Your task to perform on an android device: Add "razer blade" to the cart on bestbuy Image 0: 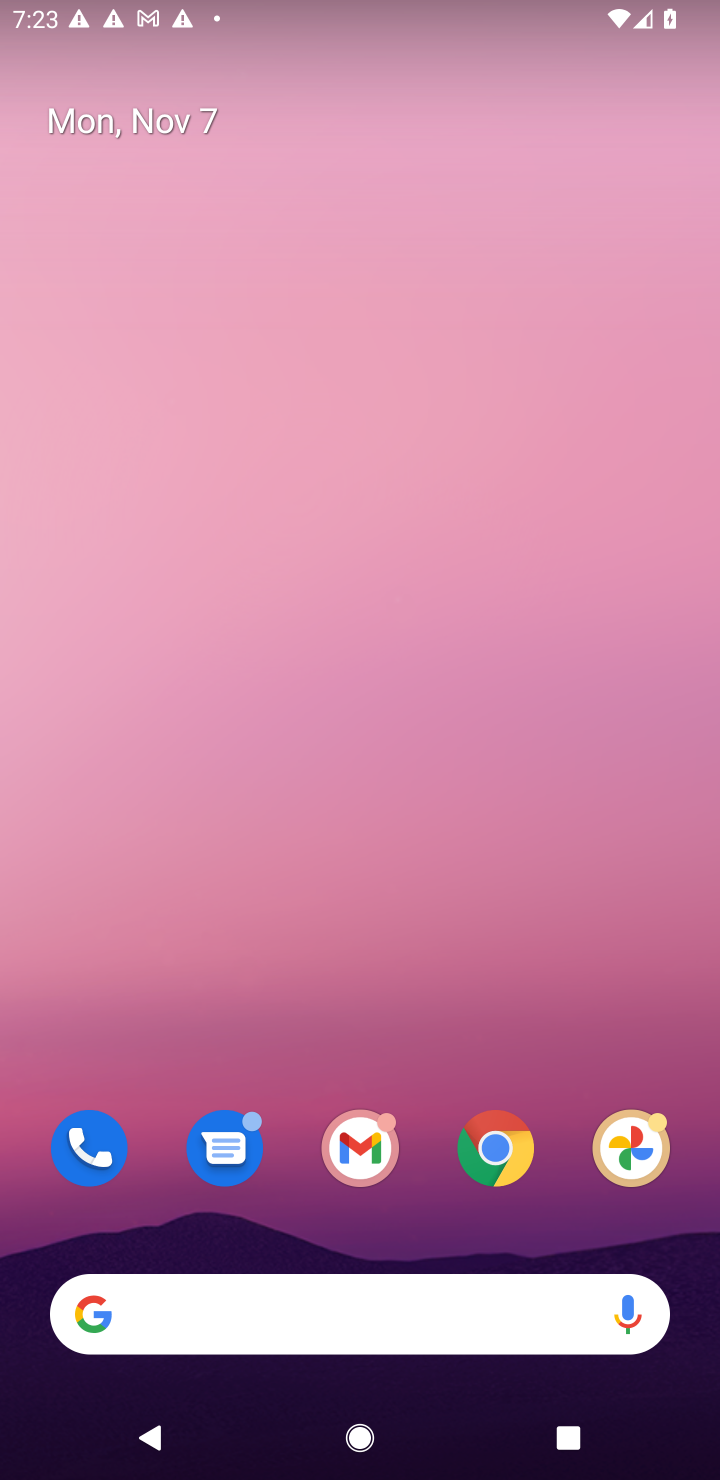
Step 0: click (487, 1167)
Your task to perform on an android device: Add "razer blade" to the cart on bestbuy Image 1: 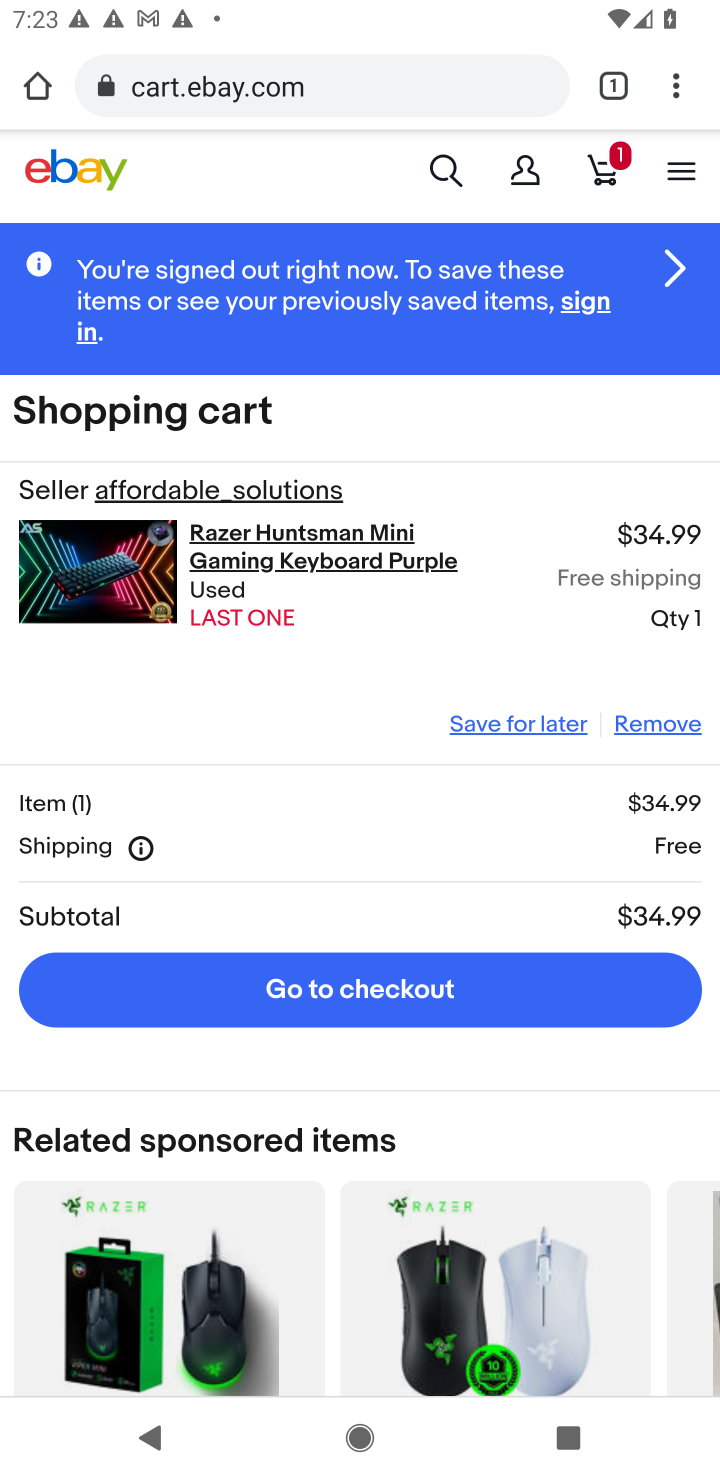
Step 1: click (32, 91)
Your task to perform on an android device: Add "razer blade" to the cart on bestbuy Image 2: 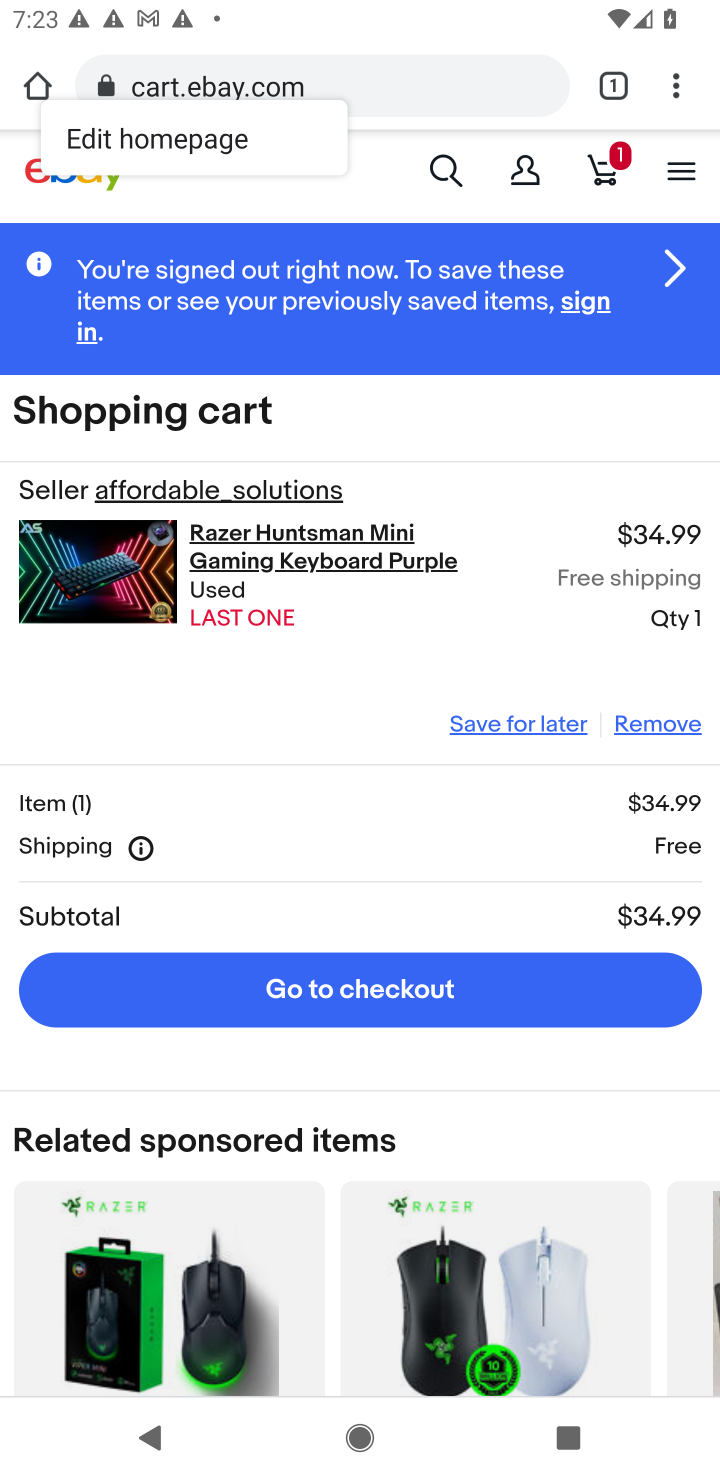
Step 2: click (38, 86)
Your task to perform on an android device: Add "razer blade" to the cart on bestbuy Image 3: 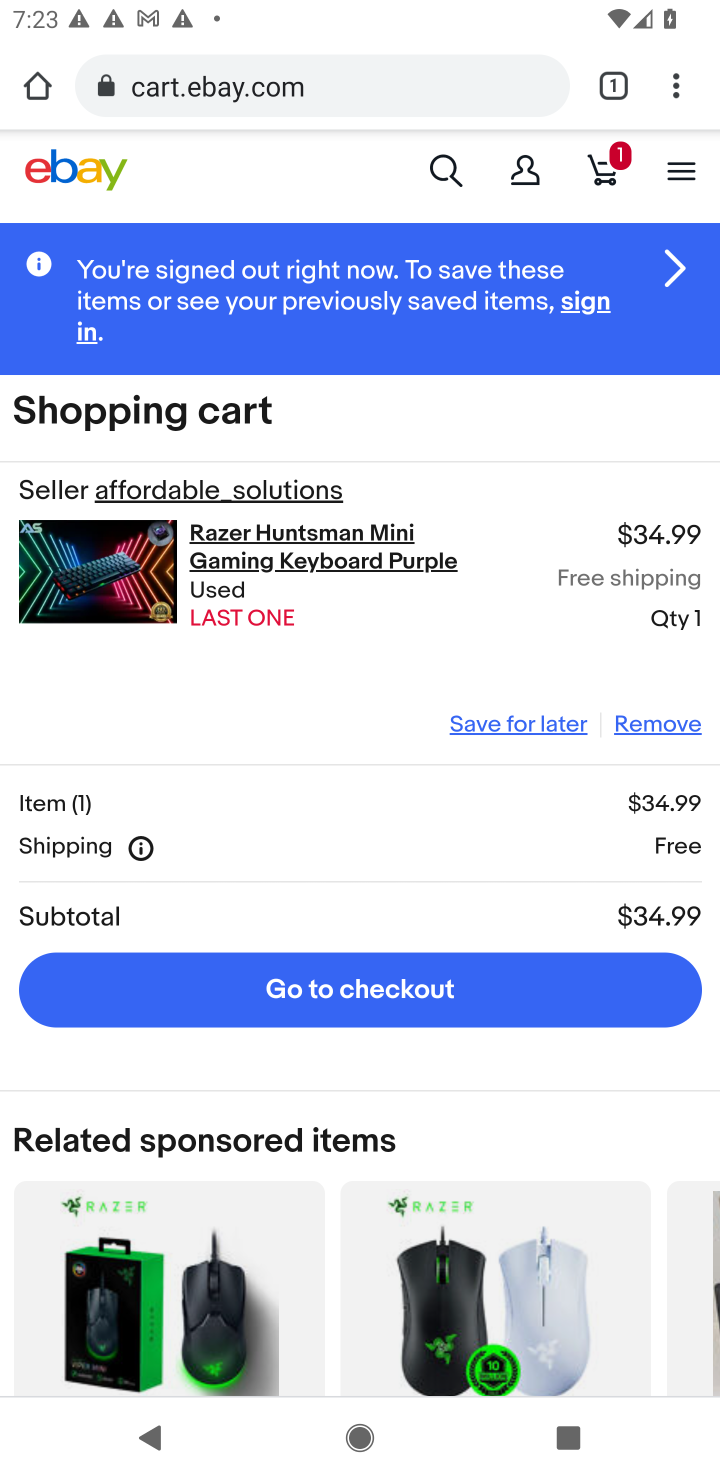
Step 3: click (459, 85)
Your task to perform on an android device: Add "razer blade" to the cart on bestbuy Image 4: 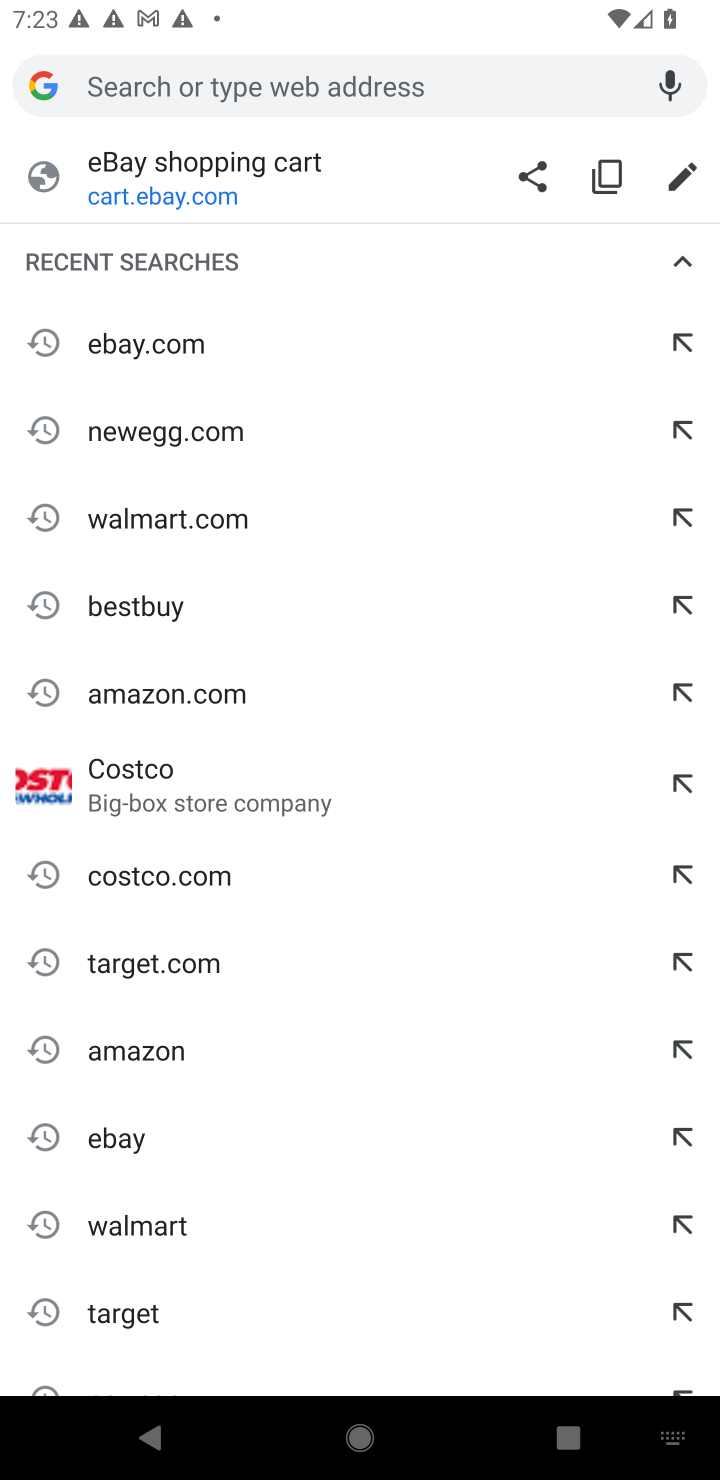
Step 4: click (158, 604)
Your task to perform on an android device: Add "razer blade" to the cart on bestbuy Image 5: 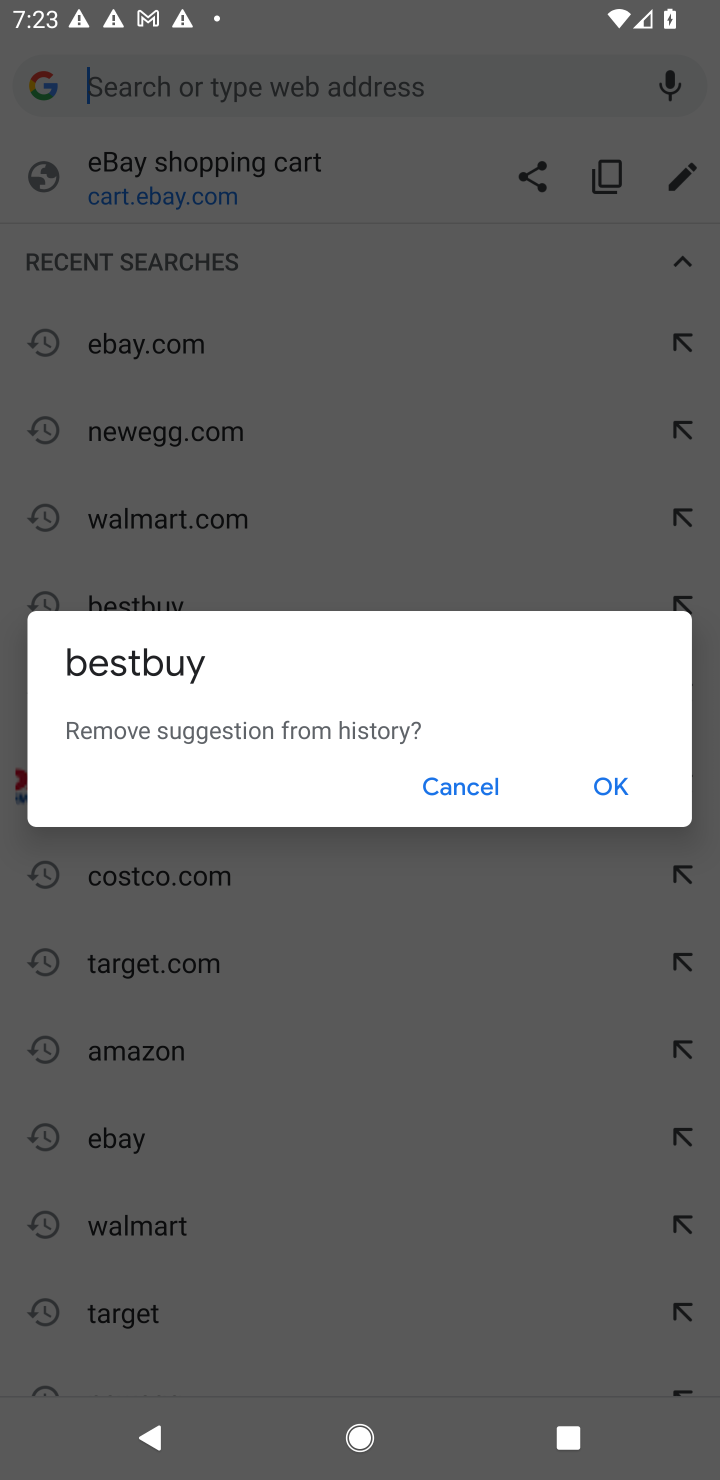
Step 5: click (448, 790)
Your task to perform on an android device: Add "razer blade" to the cart on bestbuy Image 6: 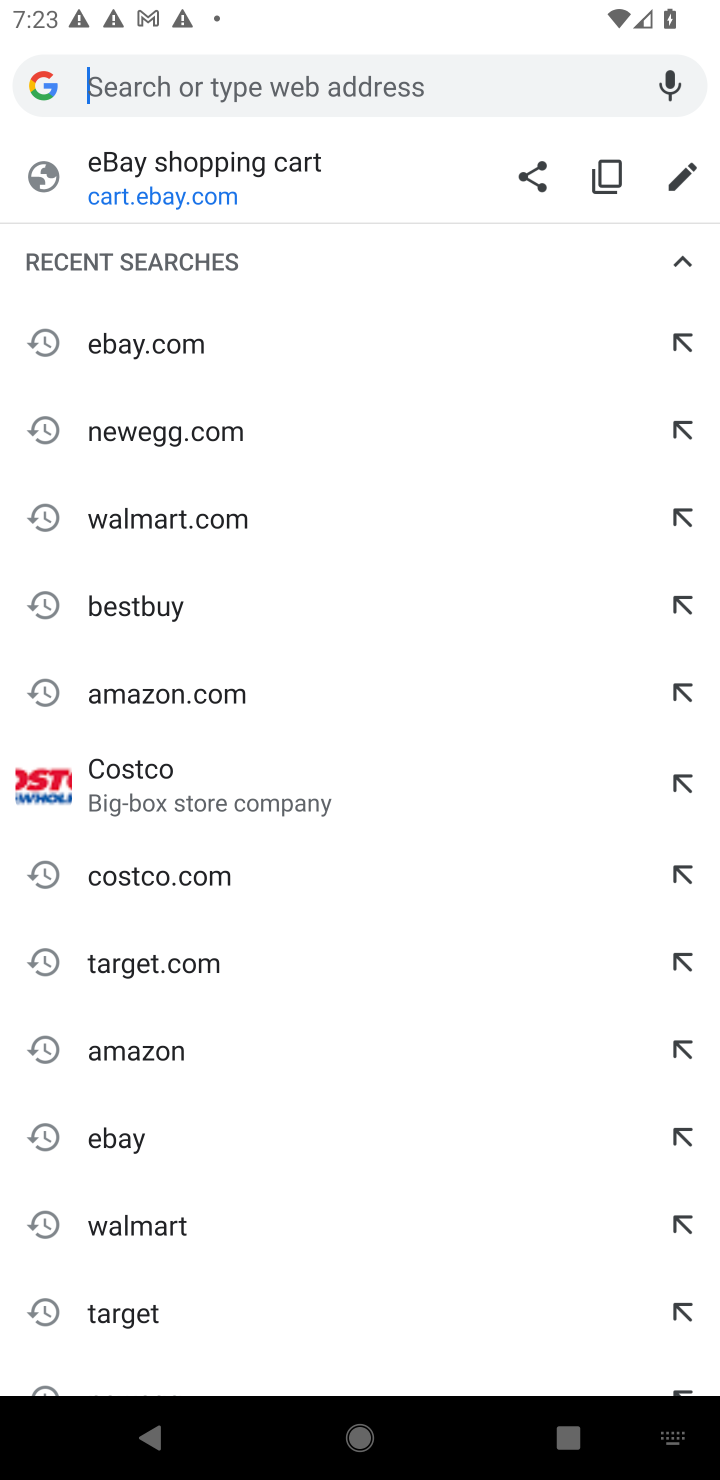
Step 6: click (155, 613)
Your task to perform on an android device: Add "razer blade" to the cart on bestbuy Image 7: 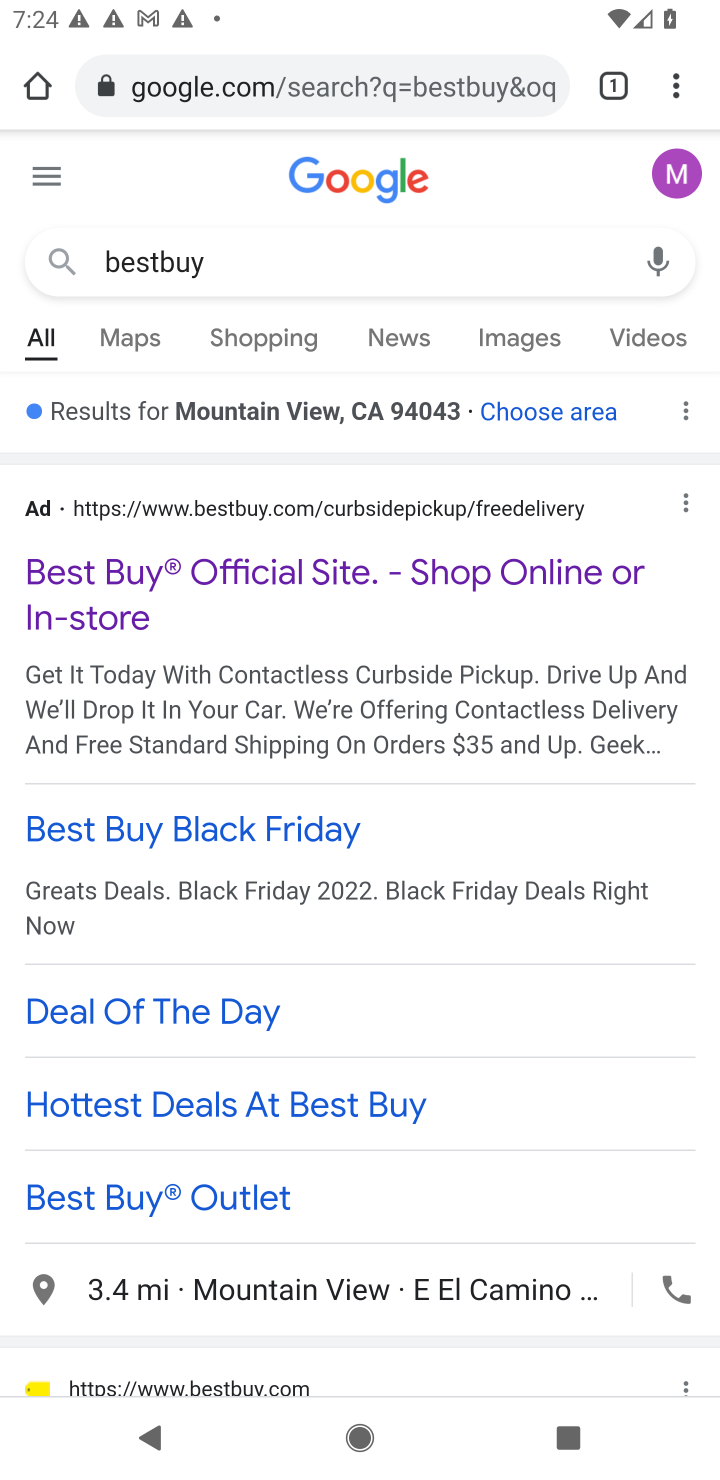
Step 7: drag from (299, 957) to (330, 373)
Your task to perform on an android device: Add "razer blade" to the cart on bestbuy Image 8: 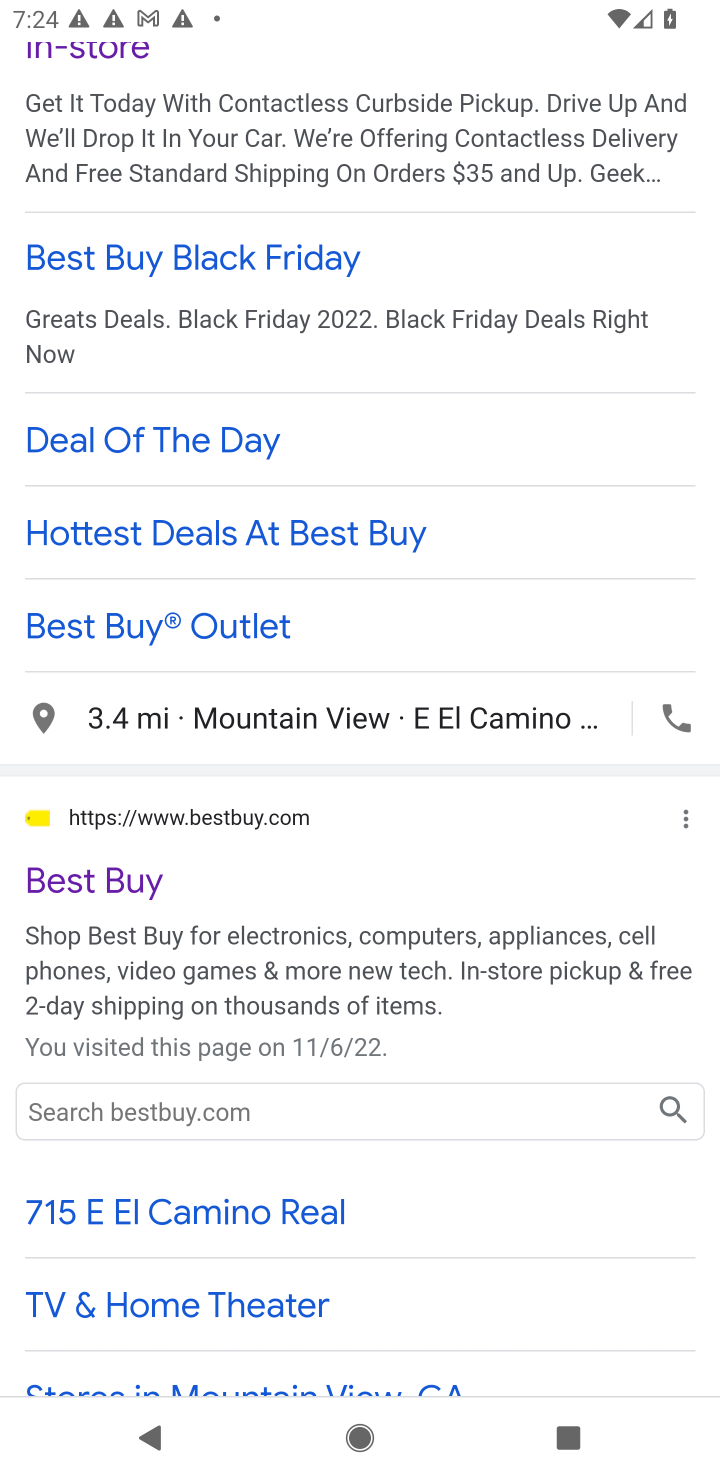
Step 8: click (181, 809)
Your task to perform on an android device: Add "razer blade" to the cart on bestbuy Image 9: 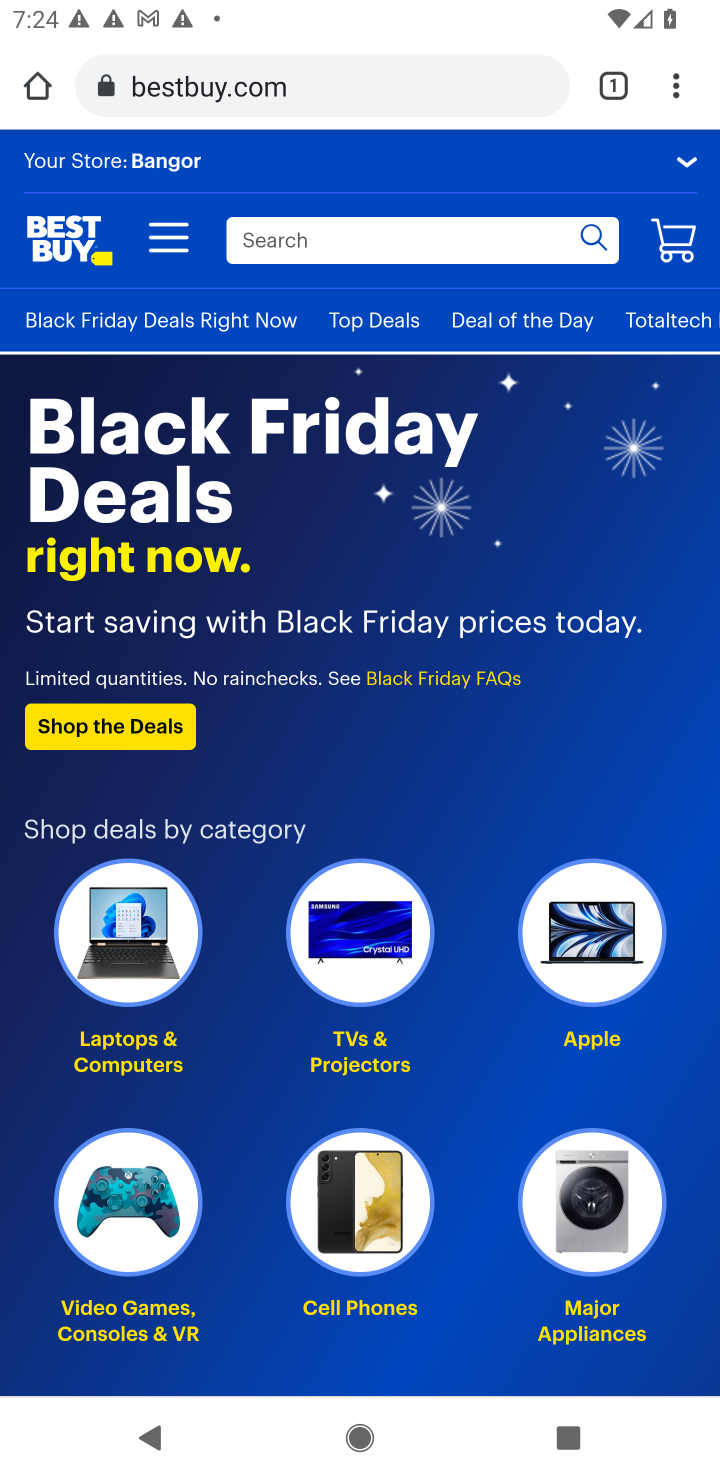
Step 9: click (414, 238)
Your task to perform on an android device: Add "razer blade" to the cart on bestbuy Image 10: 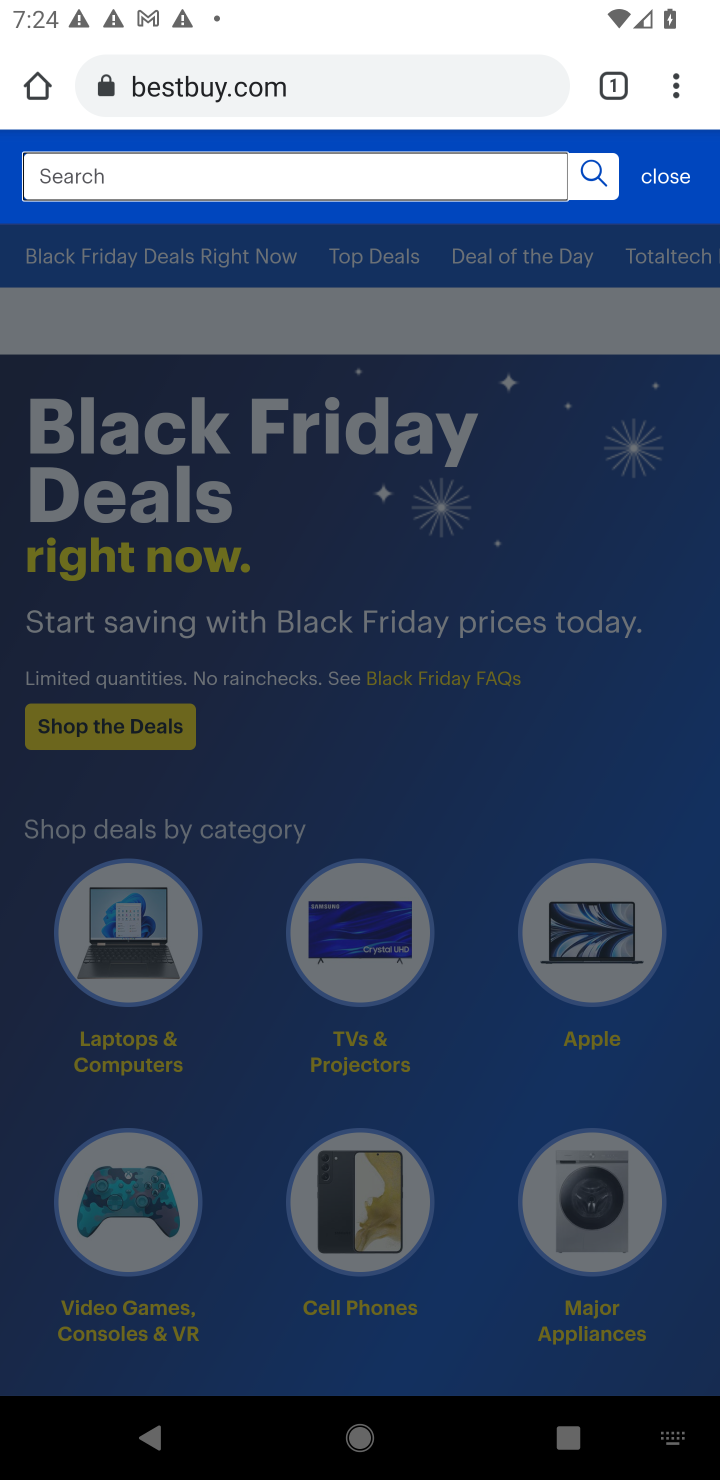
Step 10: type "razer blade"
Your task to perform on an android device: Add "razer blade" to the cart on bestbuy Image 11: 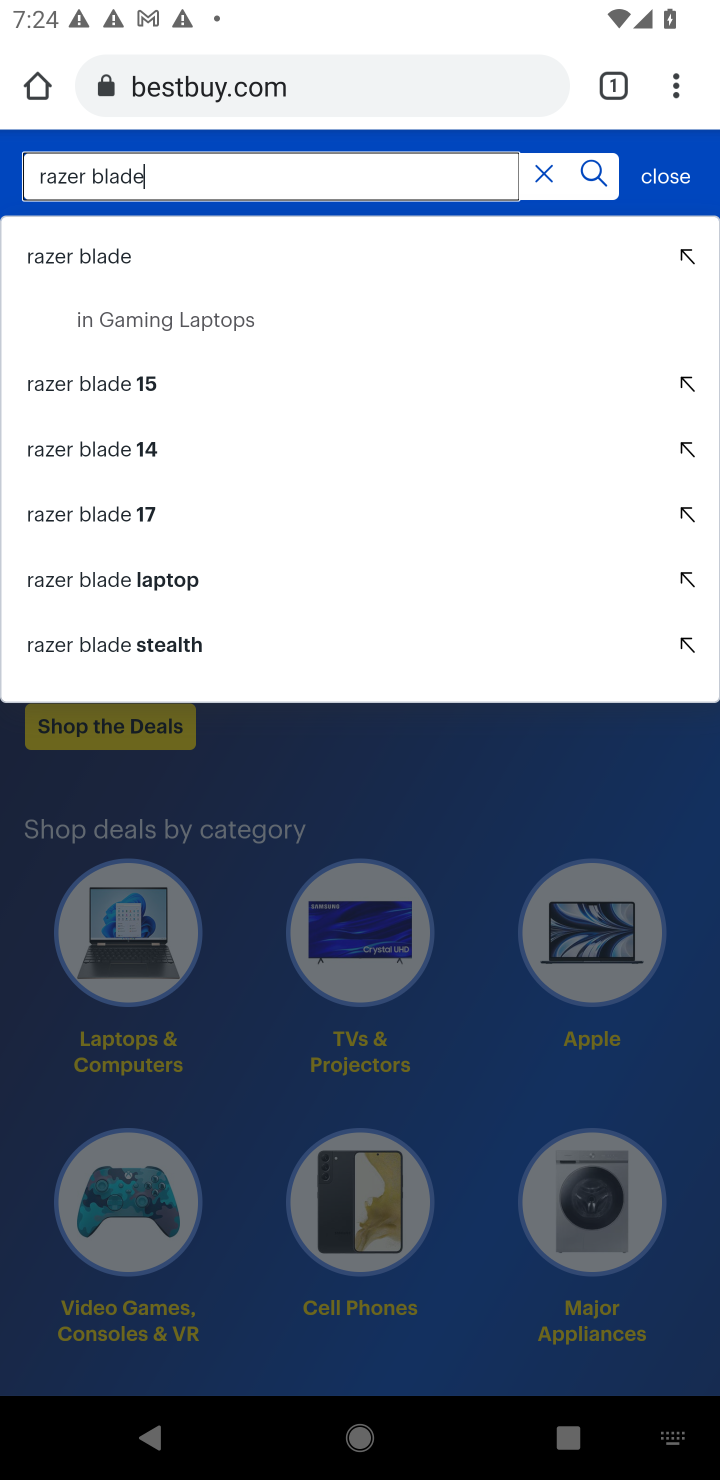
Step 11: click (53, 255)
Your task to perform on an android device: Add "razer blade" to the cart on bestbuy Image 12: 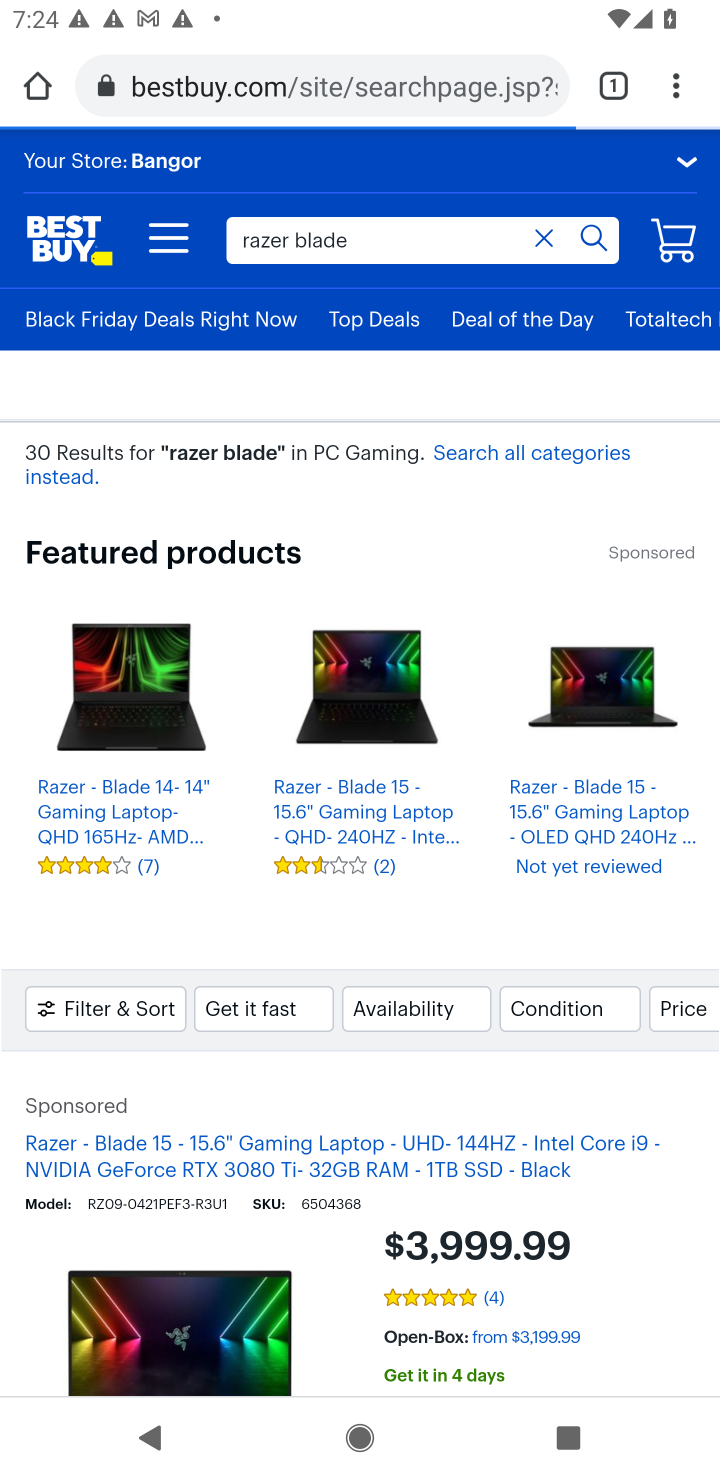
Step 12: drag from (448, 1097) to (502, 493)
Your task to perform on an android device: Add "razer blade" to the cart on bestbuy Image 13: 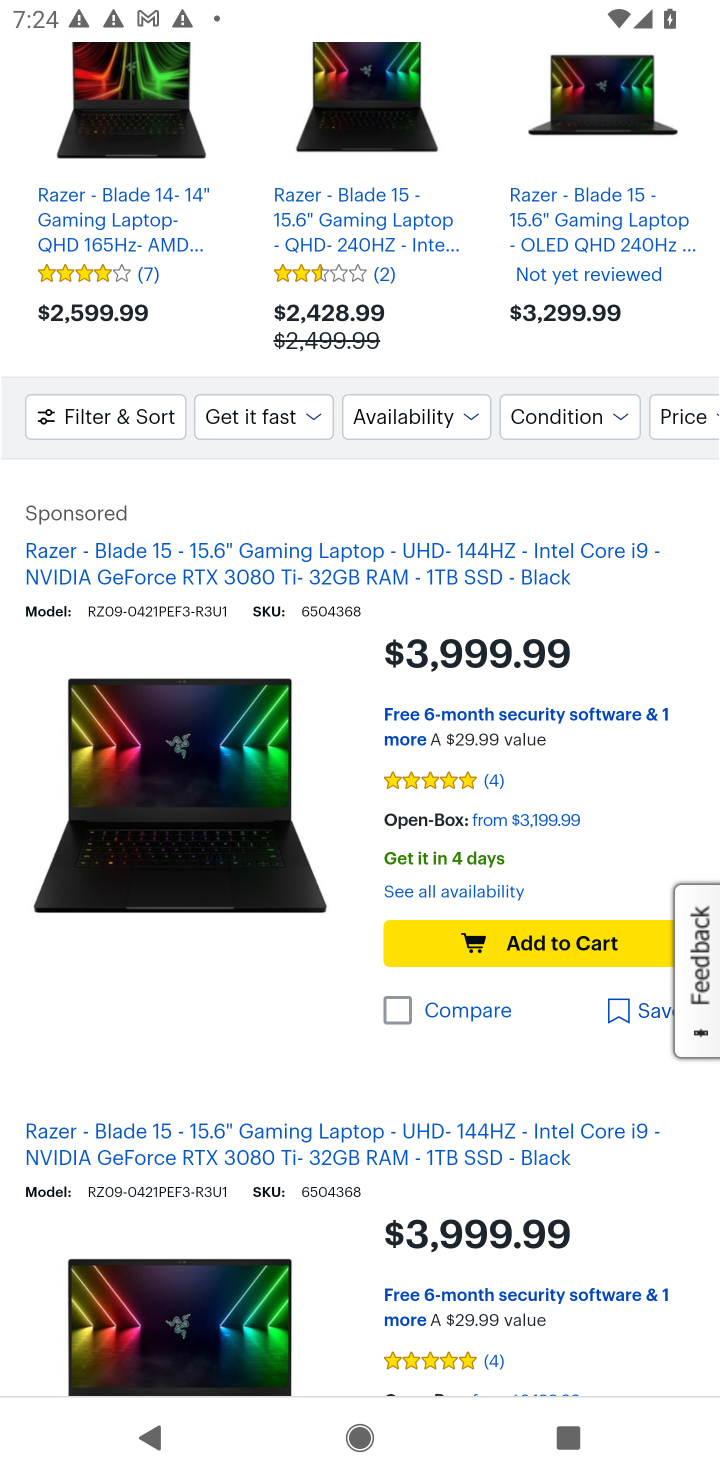
Step 13: drag from (254, 1006) to (239, 574)
Your task to perform on an android device: Add "razer blade" to the cart on bestbuy Image 14: 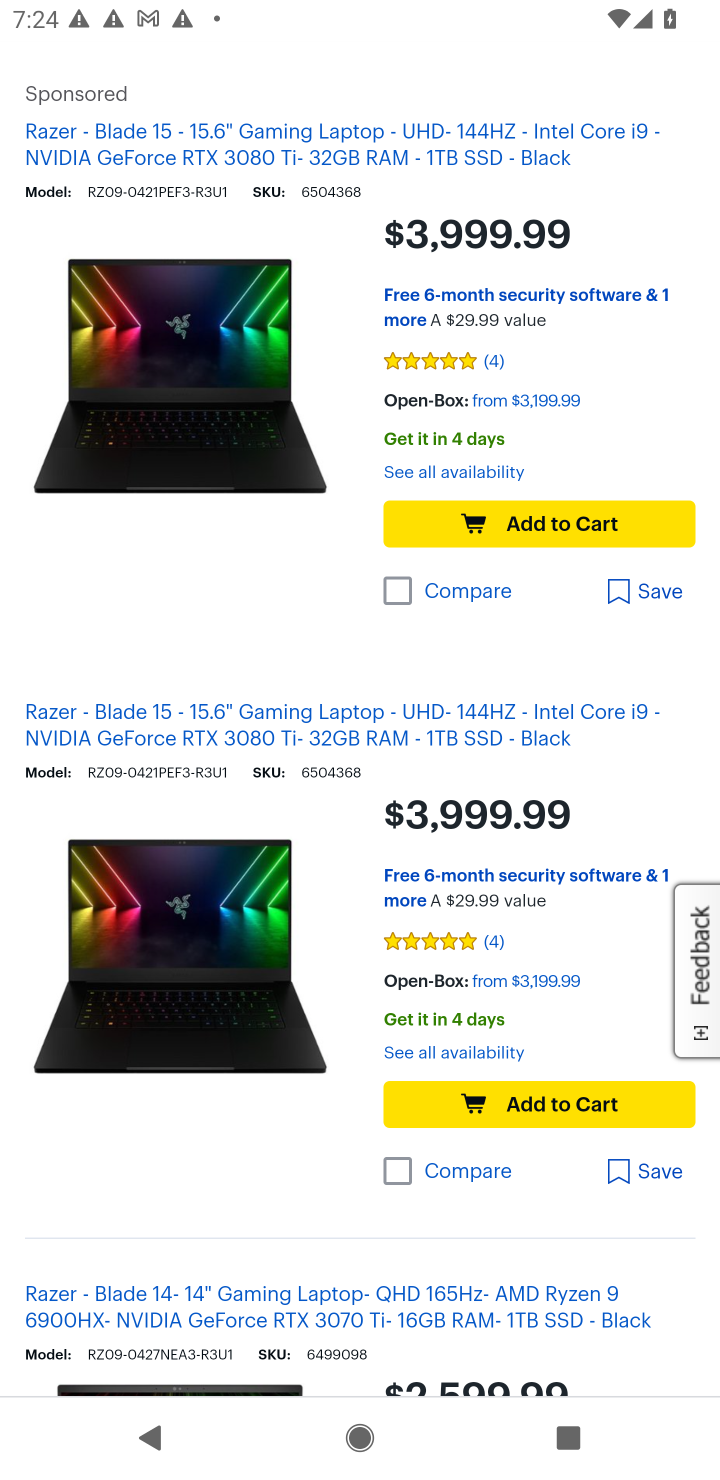
Step 14: drag from (261, 811) to (273, 921)
Your task to perform on an android device: Add "razer blade" to the cart on bestbuy Image 15: 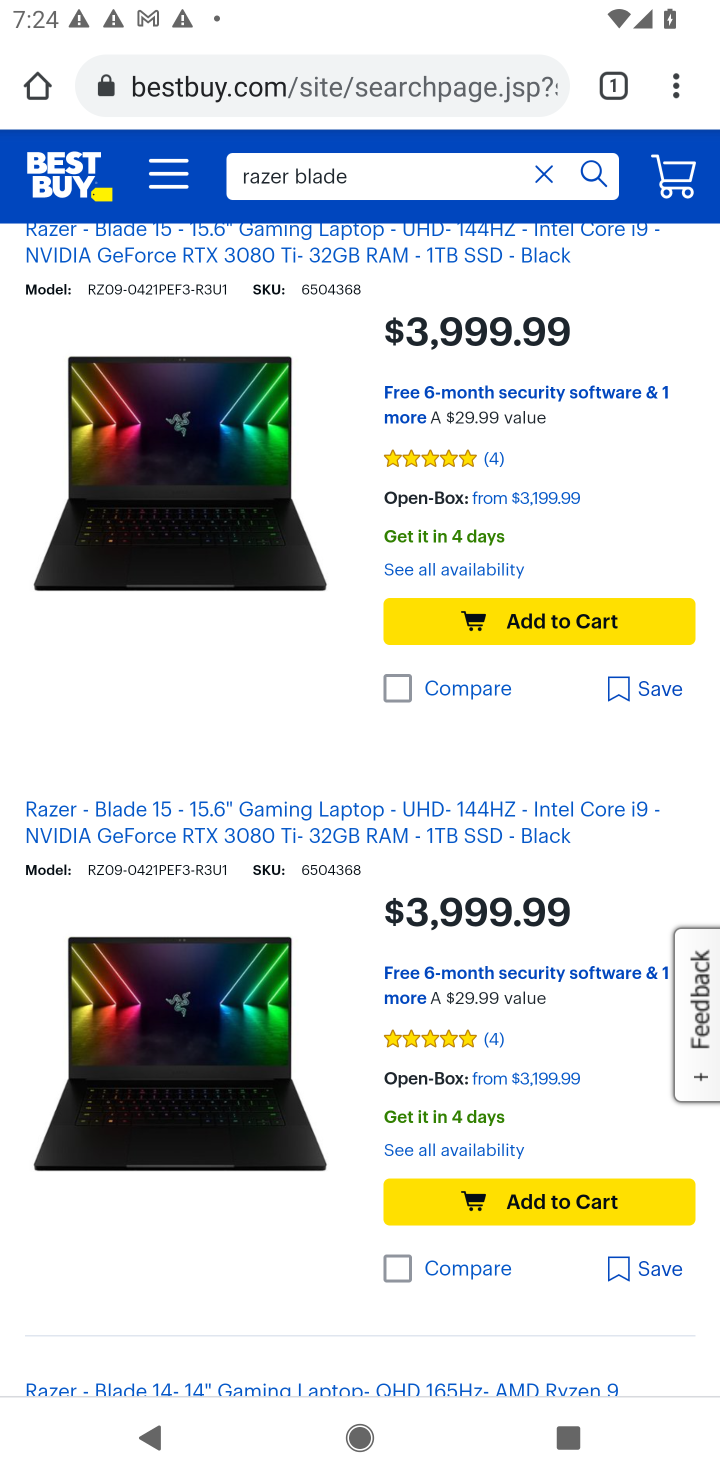
Step 15: drag from (256, 584) to (328, 1282)
Your task to perform on an android device: Add "razer blade" to the cart on bestbuy Image 16: 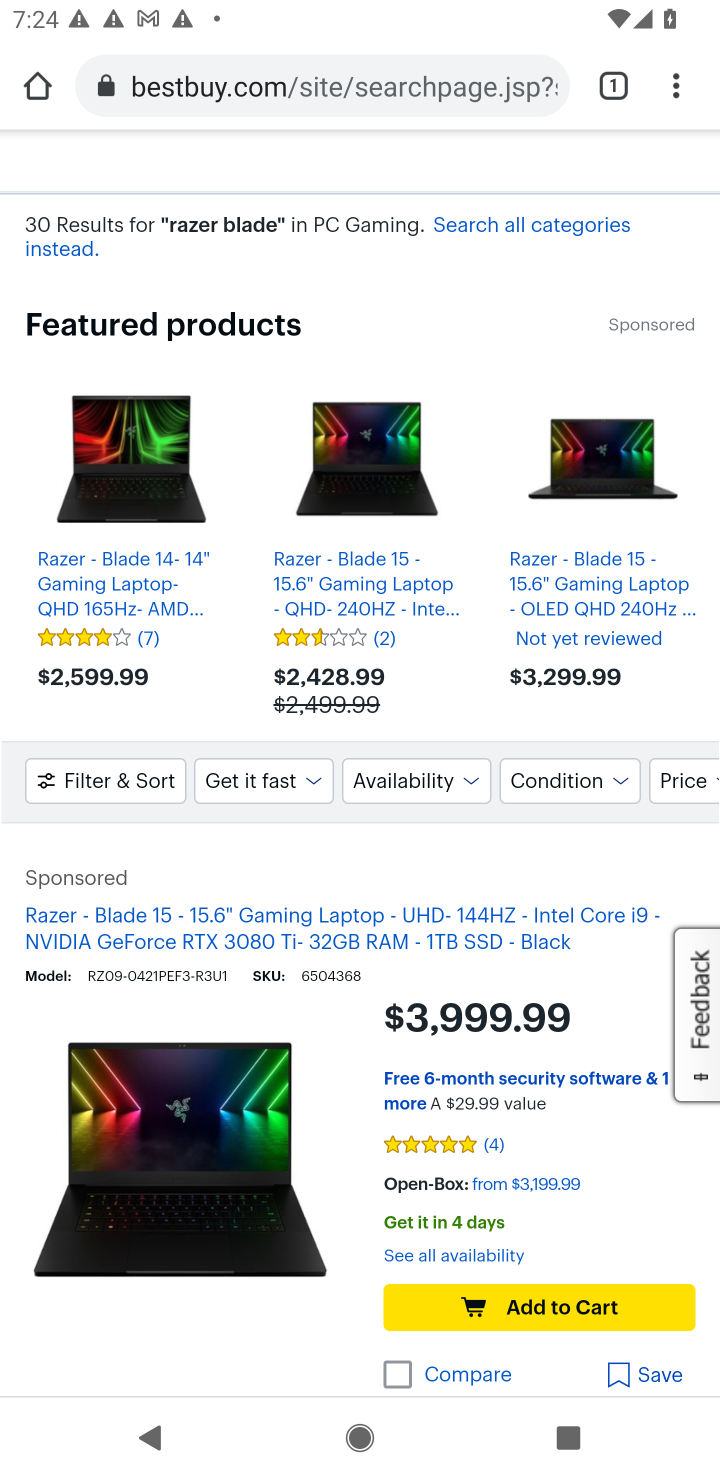
Step 16: click (201, 1088)
Your task to perform on an android device: Add "razer blade" to the cart on bestbuy Image 17: 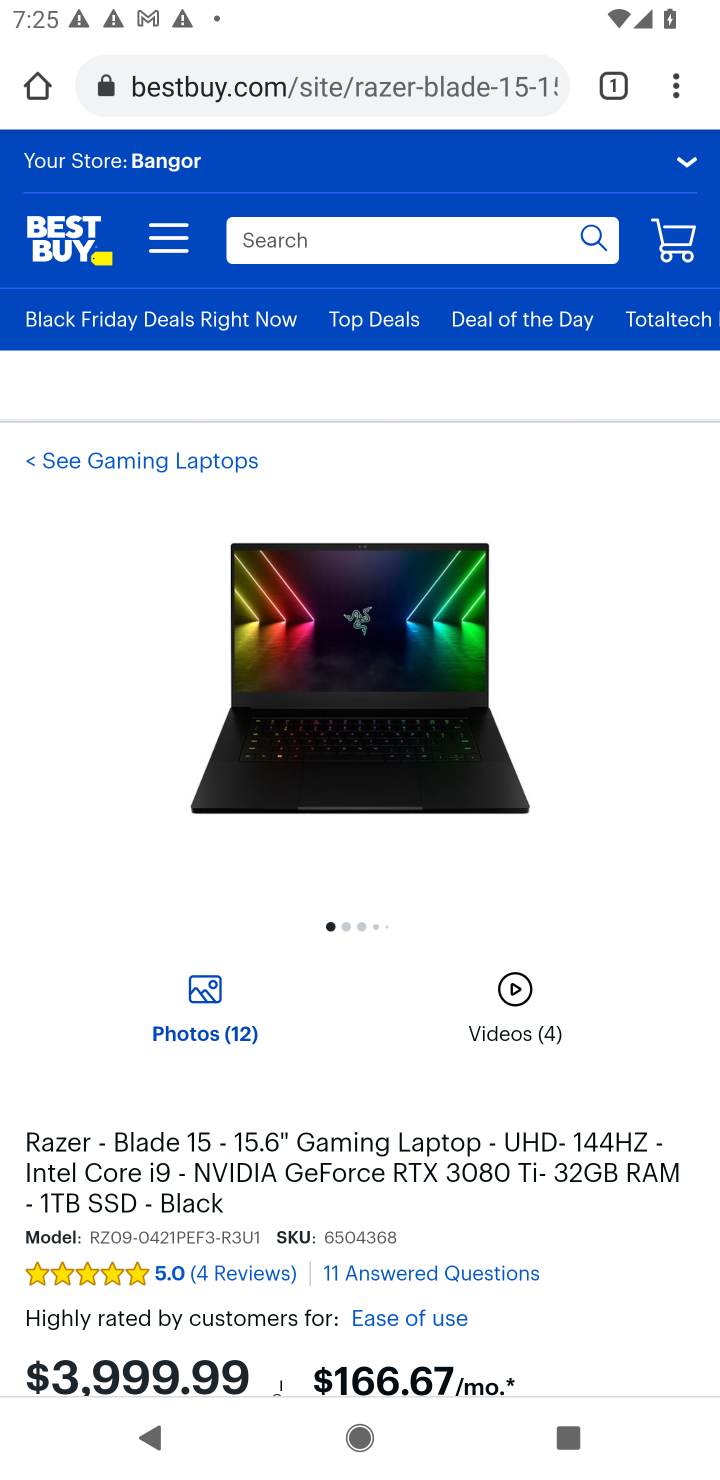
Step 17: drag from (590, 1180) to (507, 649)
Your task to perform on an android device: Add "razer blade" to the cart on bestbuy Image 18: 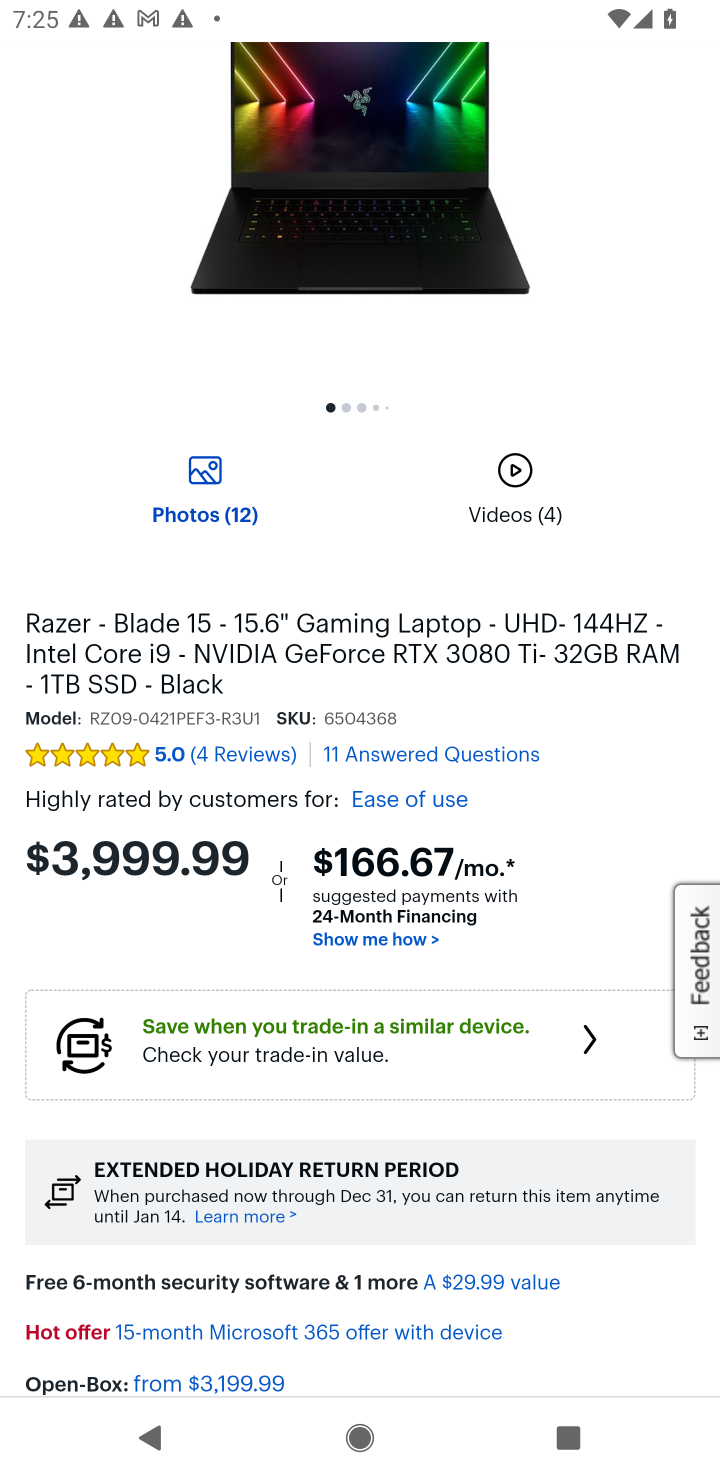
Step 18: drag from (610, 680) to (618, 503)
Your task to perform on an android device: Add "razer blade" to the cart on bestbuy Image 19: 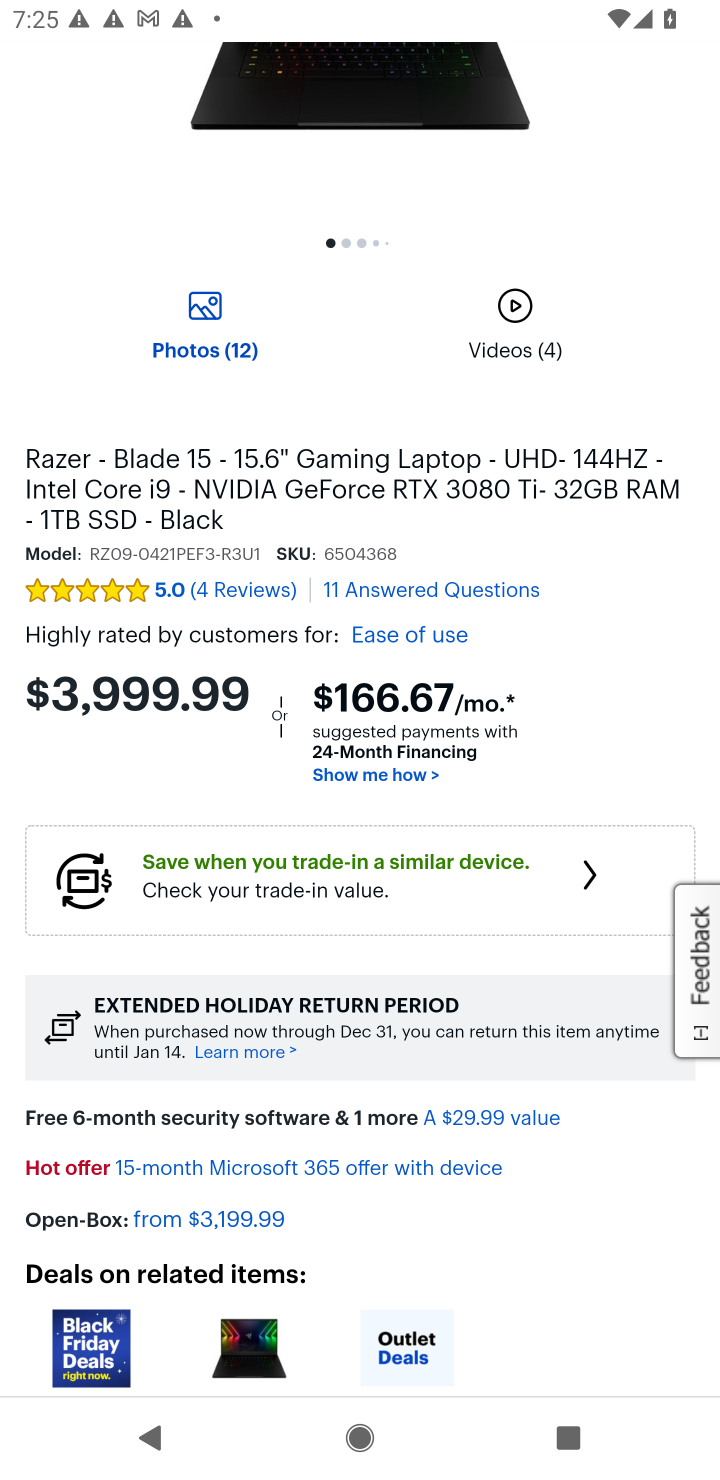
Step 19: drag from (550, 1239) to (537, 733)
Your task to perform on an android device: Add "razer blade" to the cart on bestbuy Image 20: 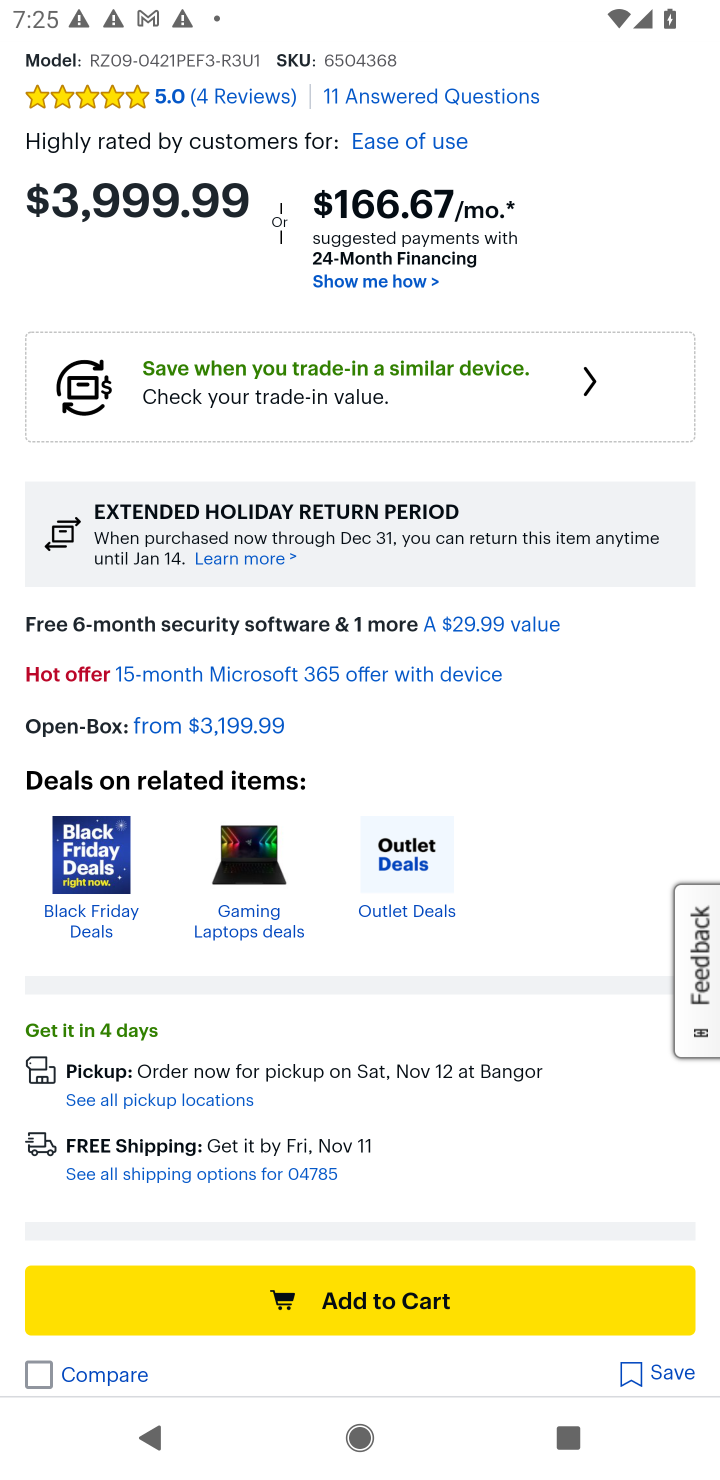
Step 20: click (435, 1310)
Your task to perform on an android device: Add "razer blade" to the cart on bestbuy Image 21: 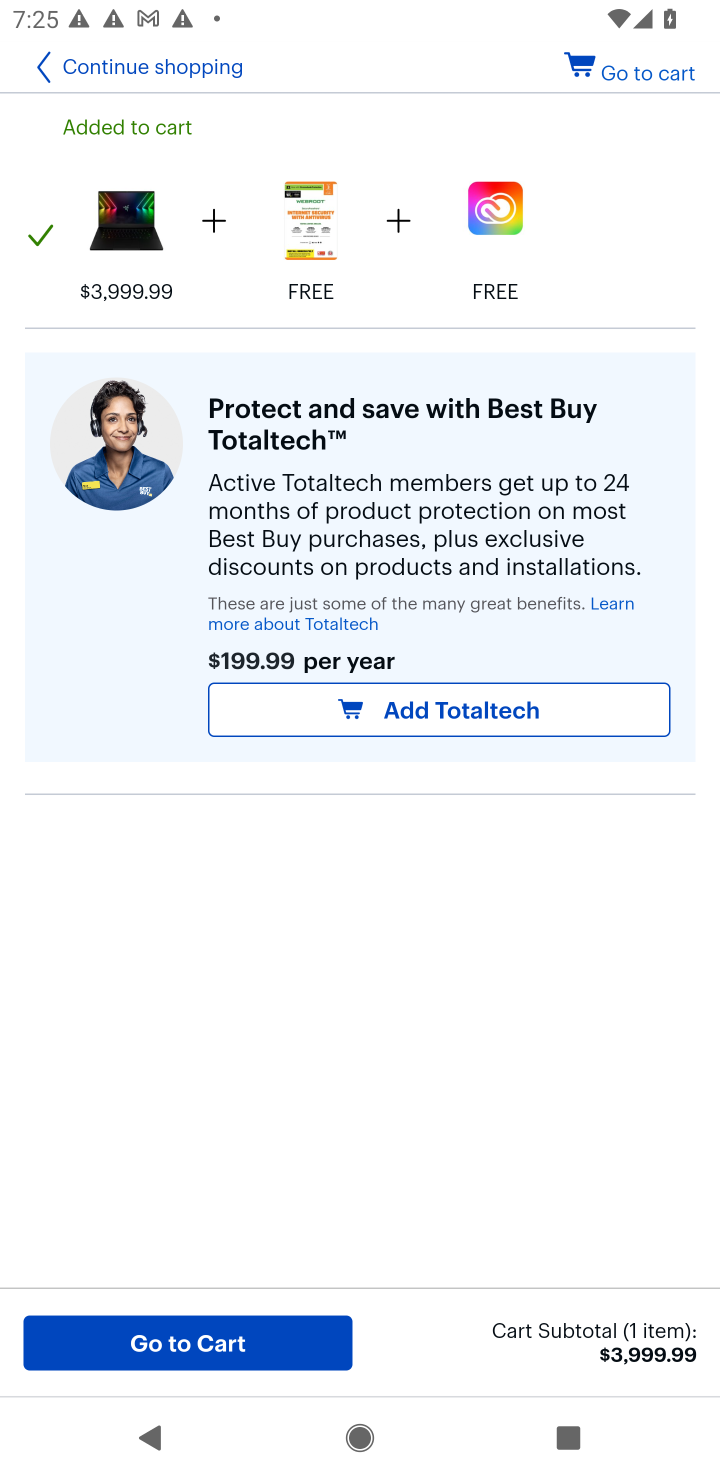
Step 21: task complete